Your task to perform on an android device: Open the calendar and show me this week's events? Image 0: 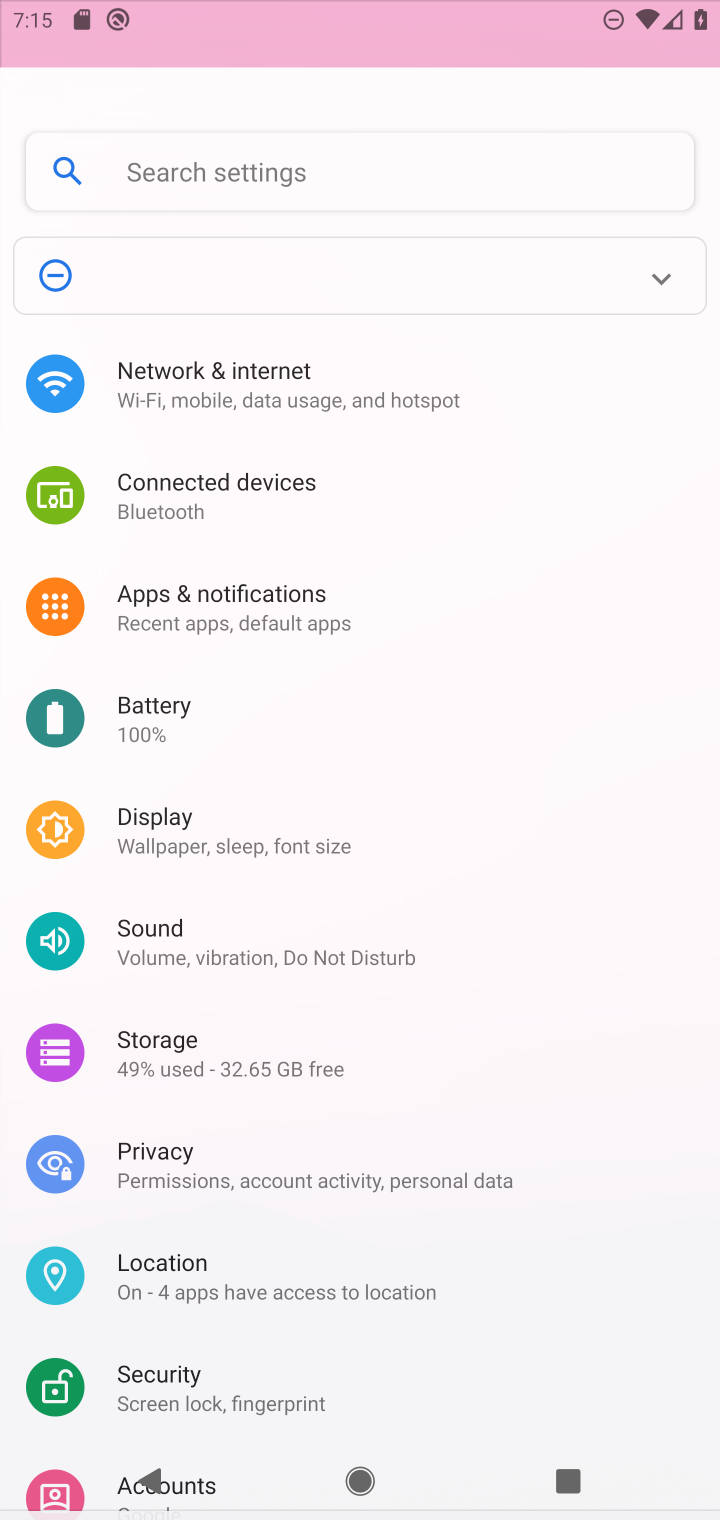
Step 0: click (490, 981)
Your task to perform on an android device: Open the calendar and show me this week's events? Image 1: 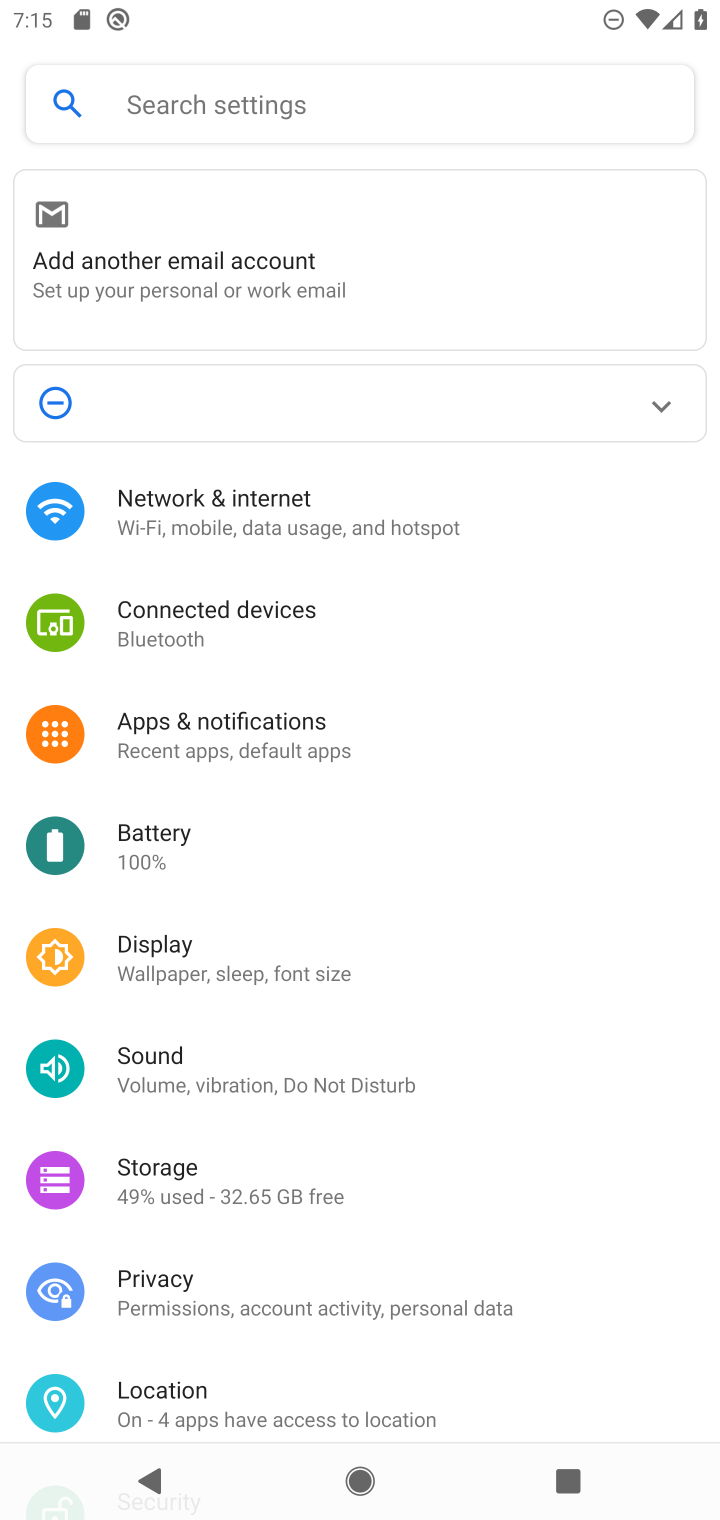
Step 1: press home button
Your task to perform on an android device: Open the calendar and show me this week's events? Image 2: 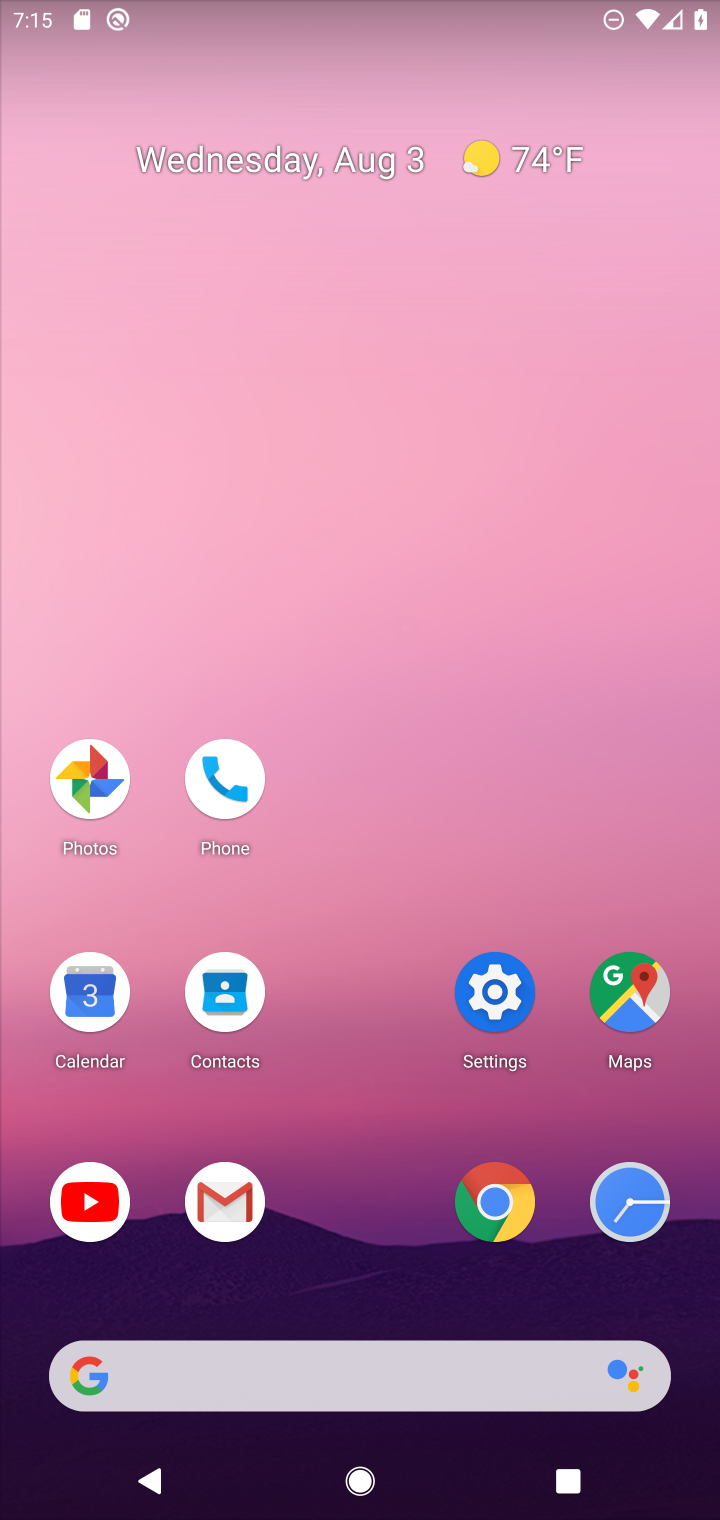
Step 2: click (89, 1000)
Your task to perform on an android device: Open the calendar and show me this week's events? Image 3: 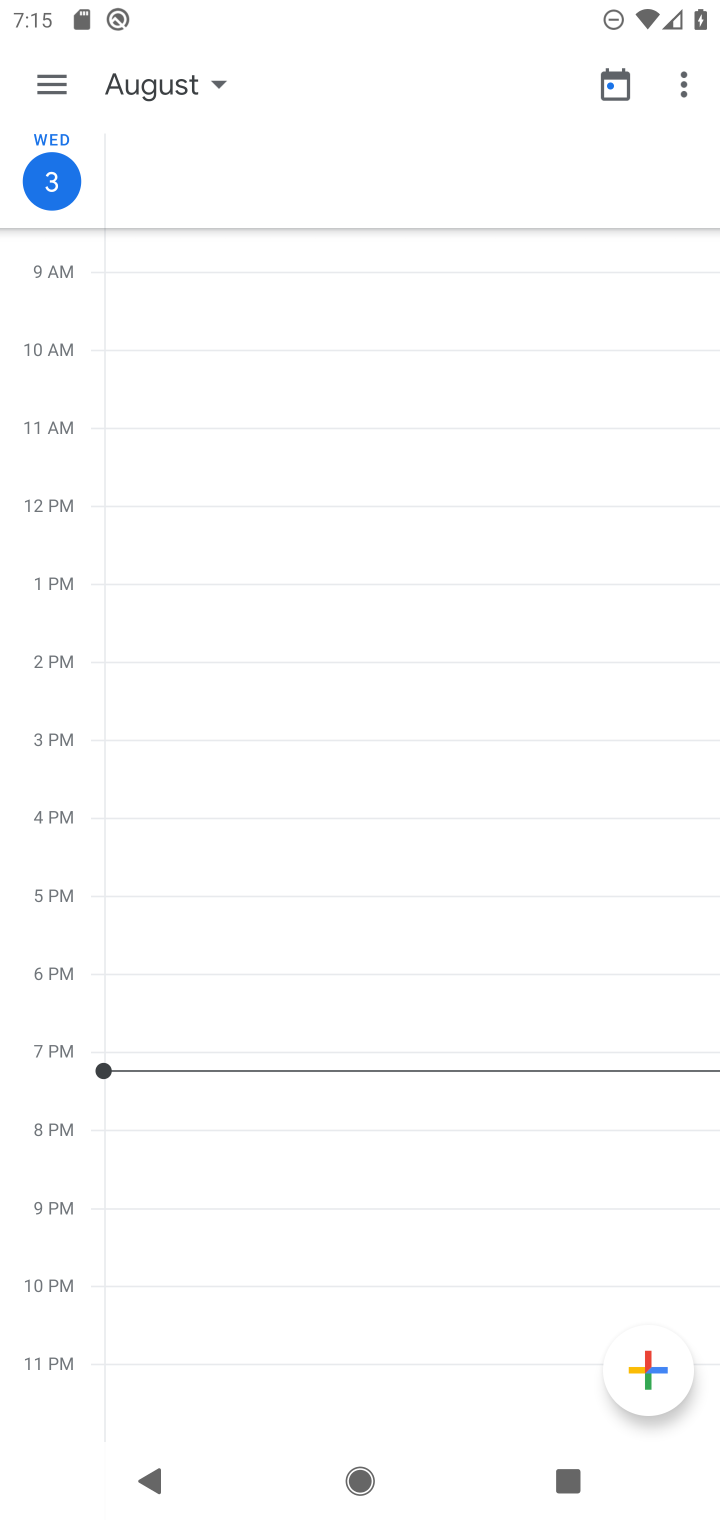
Step 3: click (38, 71)
Your task to perform on an android device: Open the calendar and show me this week's events? Image 4: 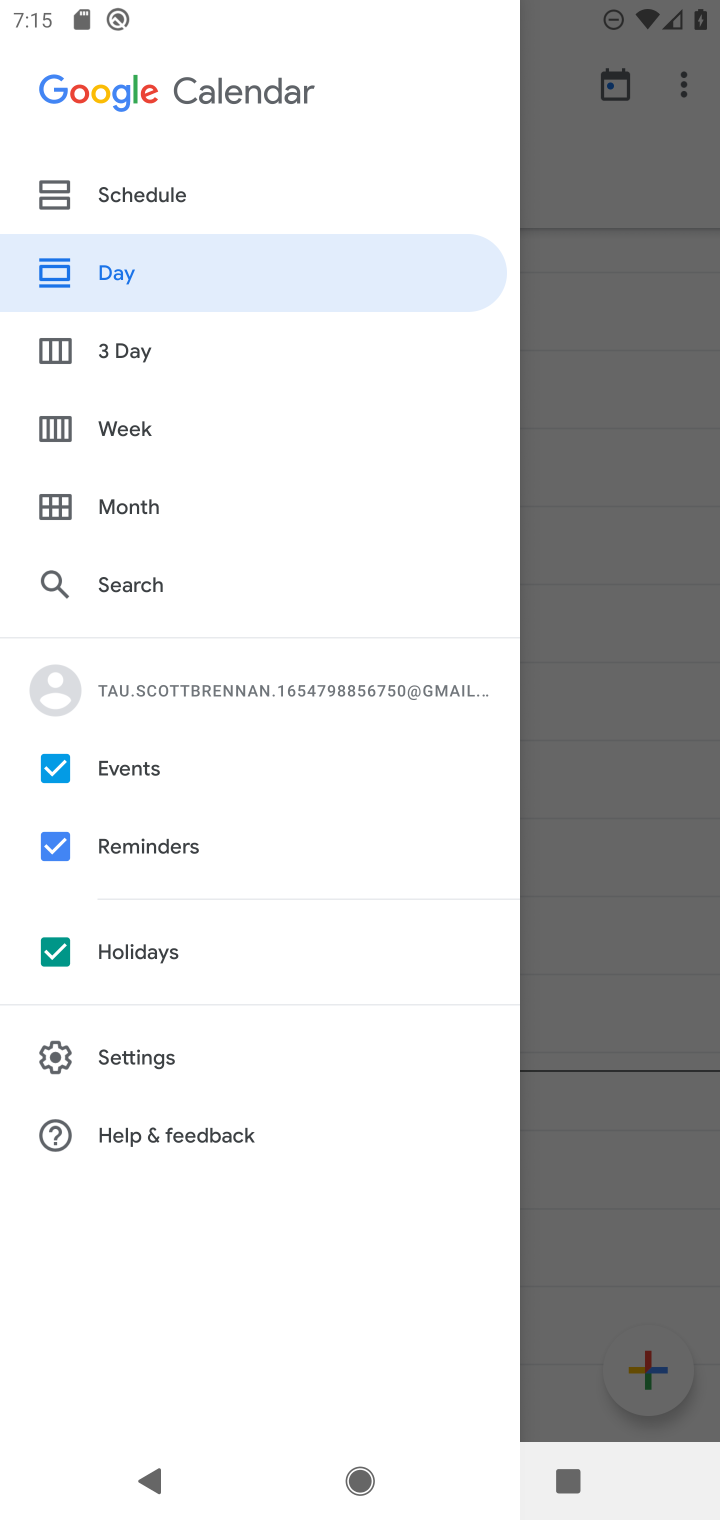
Step 4: click (118, 430)
Your task to perform on an android device: Open the calendar and show me this week's events? Image 5: 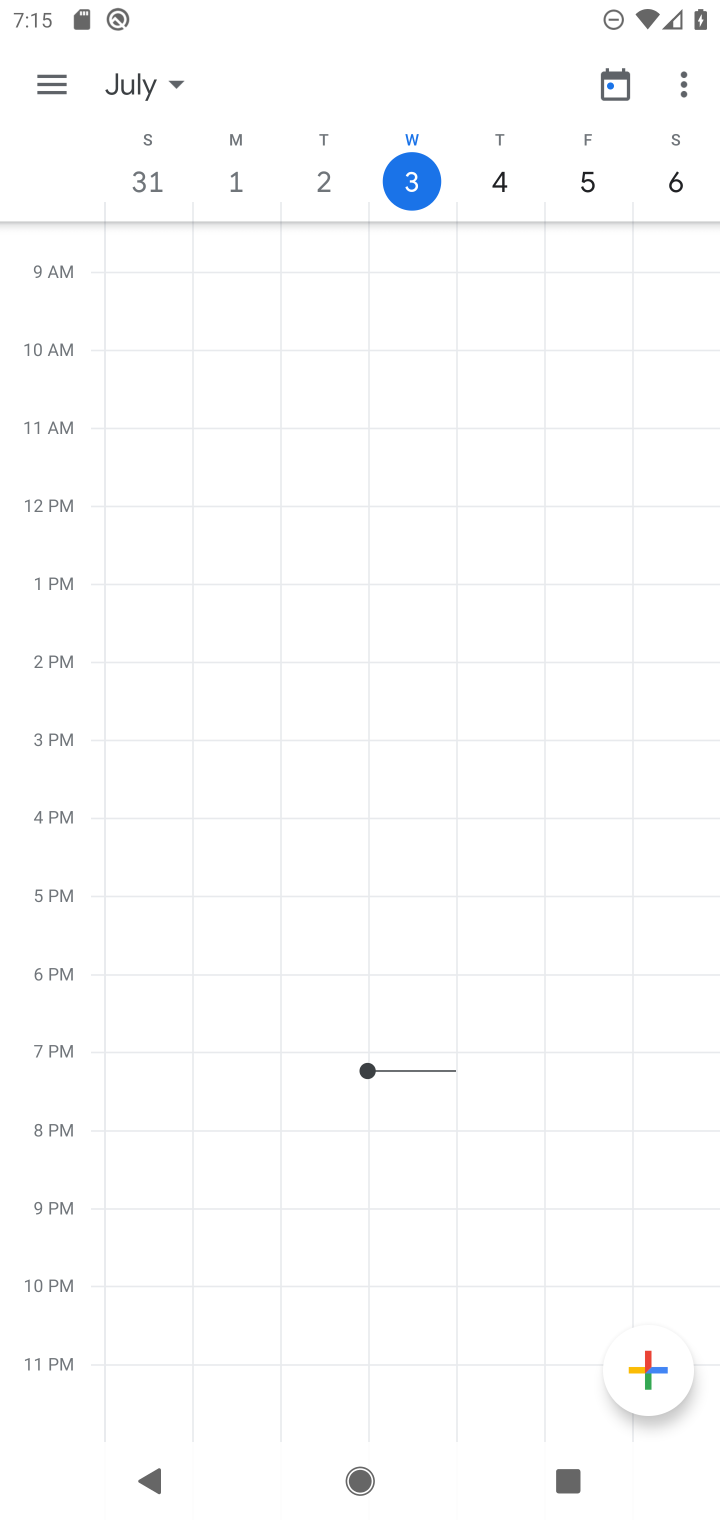
Step 5: task complete